Your task to perform on an android device: turn on location history Image 0: 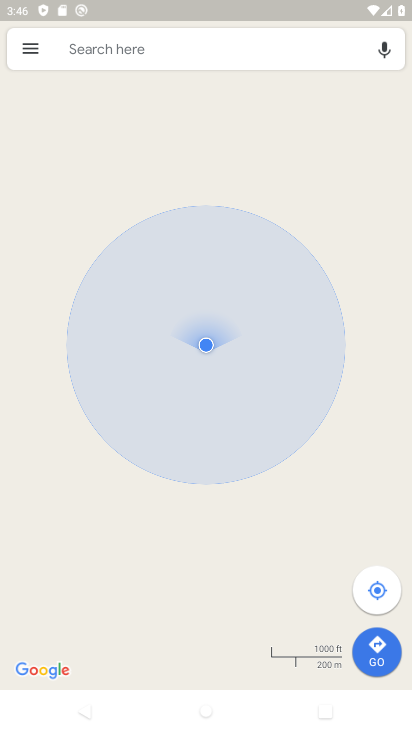
Step 0: press back button
Your task to perform on an android device: turn on location history Image 1: 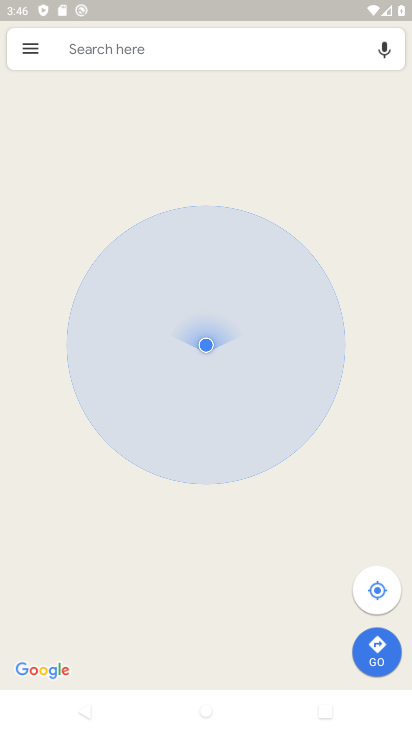
Step 1: click (44, 54)
Your task to perform on an android device: turn on location history Image 2: 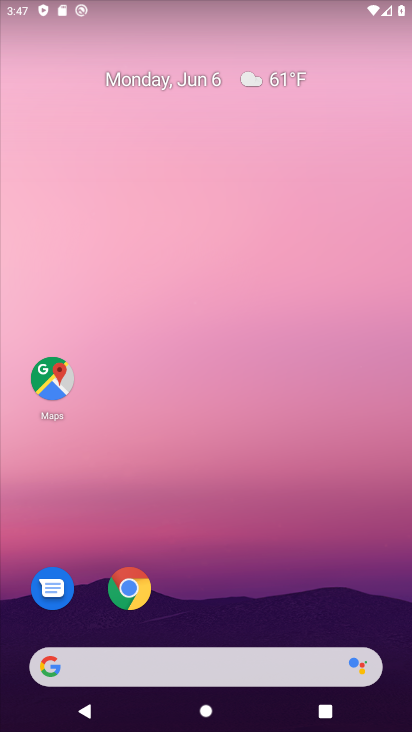
Step 2: drag from (283, 601) to (189, 17)
Your task to perform on an android device: turn on location history Image 3: 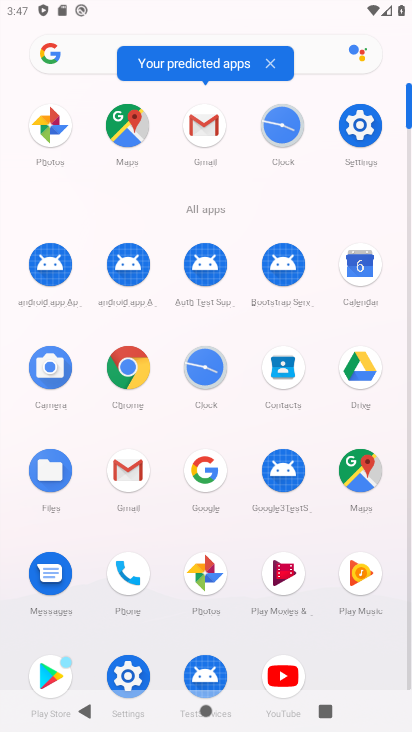
Step 3: click (124, 679)
Your task to perform on an android device: turn on location history Image 4: 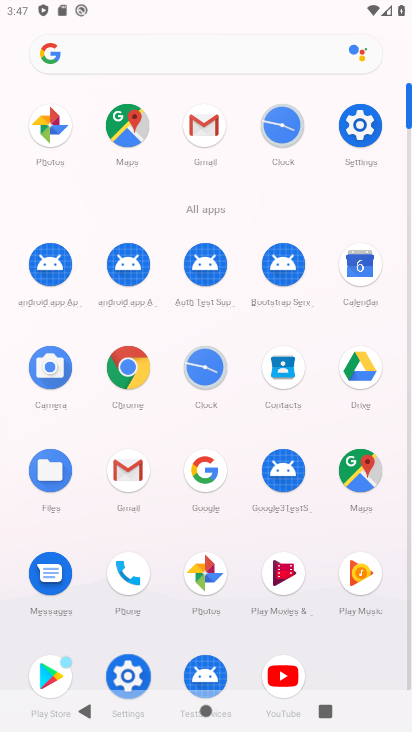
Step 4: click (121, 675)
Your task to perform on an android device: turn on location history Image 5: 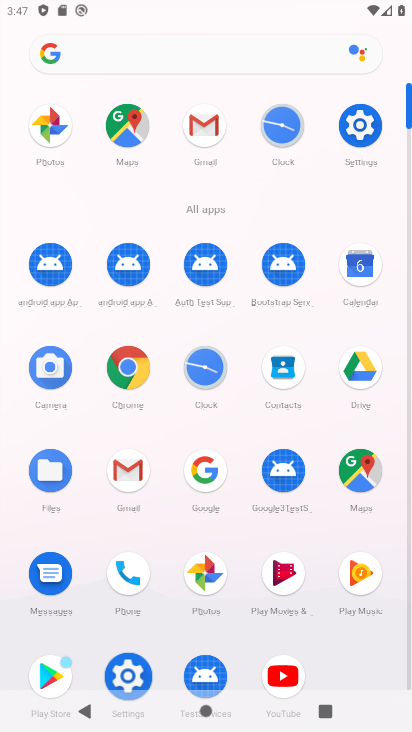
Step 5: click (121, 675)
Your task to perform on an android device: turn on location history Image 6: 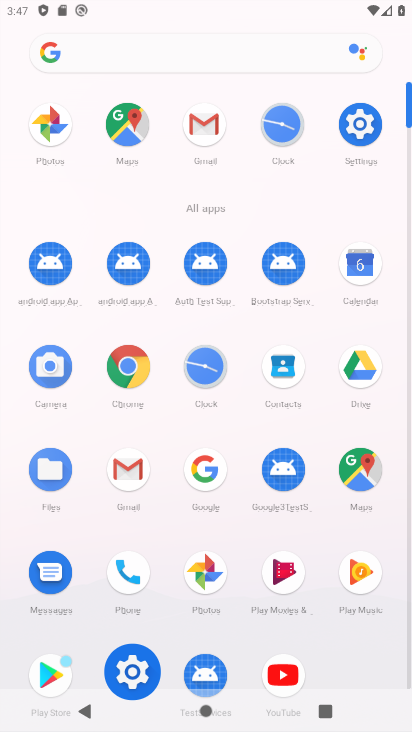
Step 6: click (121, 675)
Your task to perform on an android device: turn on location history Image 7: 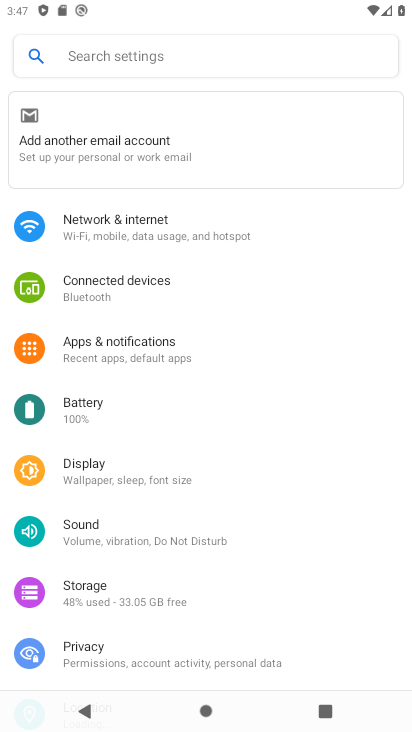
Step 7: drag from (174, 607) to (171, 240)
Your task to perform on an android device: turn on location history Image 8: 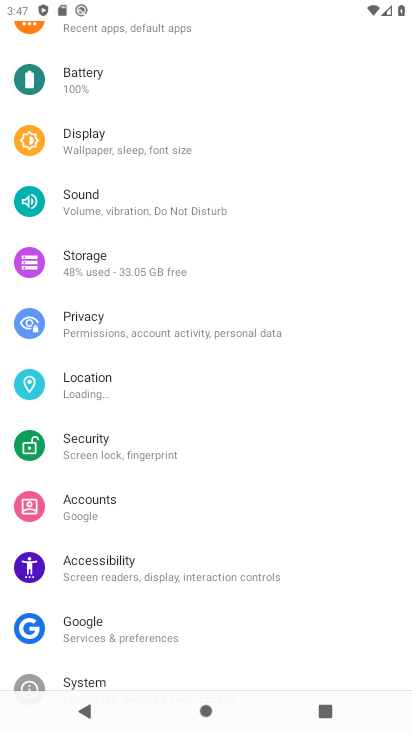
Step 8: drag from (173, 541) to (134, 235)
Your task to perform on an android device: turn on location history Image 9: 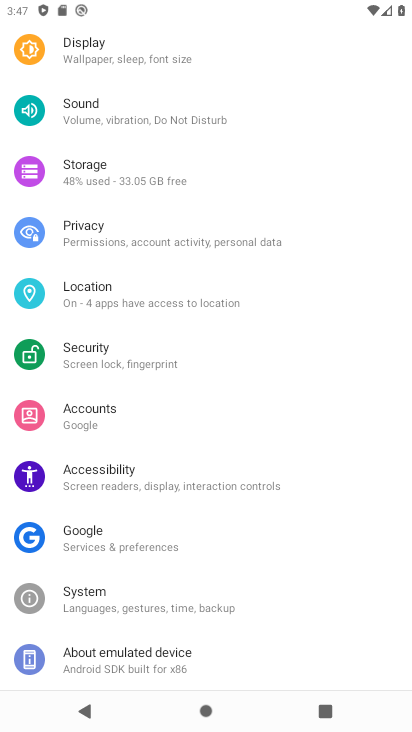
Step 9: click (83, 289)
Your task to perform on an android device: turn on location history Image 10: 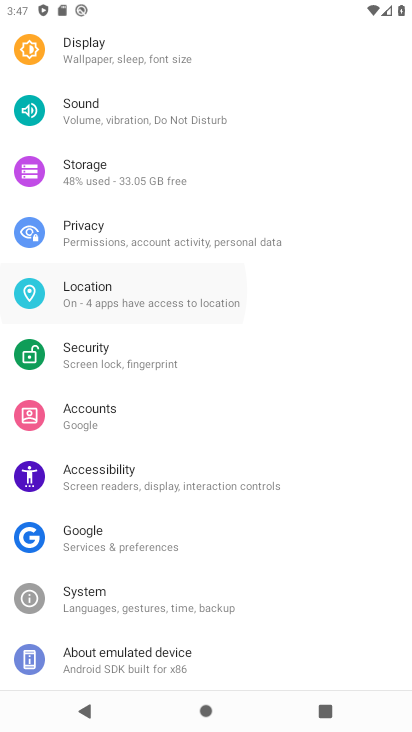
Step 10: click (84, 288)
Your task to perform on an android device: turn on location history Image 11: 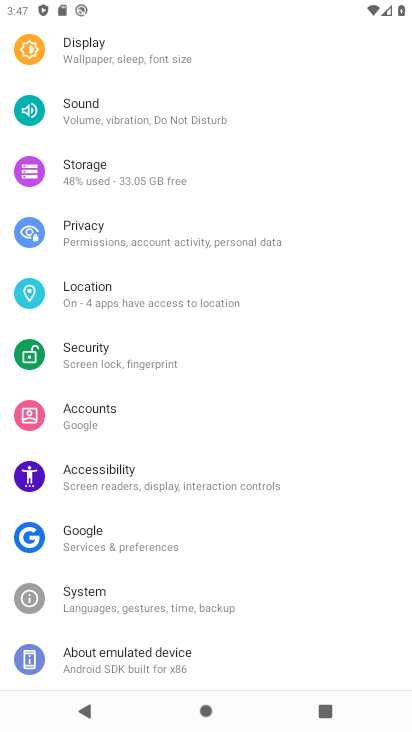
Step 11: click (85, 287)
Your task to perform on an android device: turn on location history Image 12: 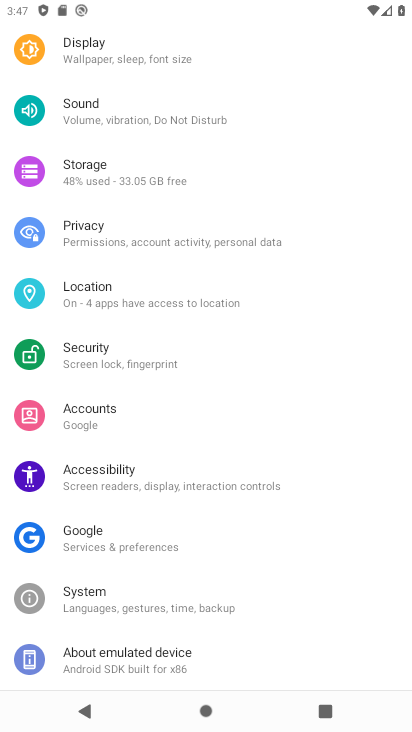
Step 12: click (84, 287)
Your task to perform on an android device: turn on location history Image 13: 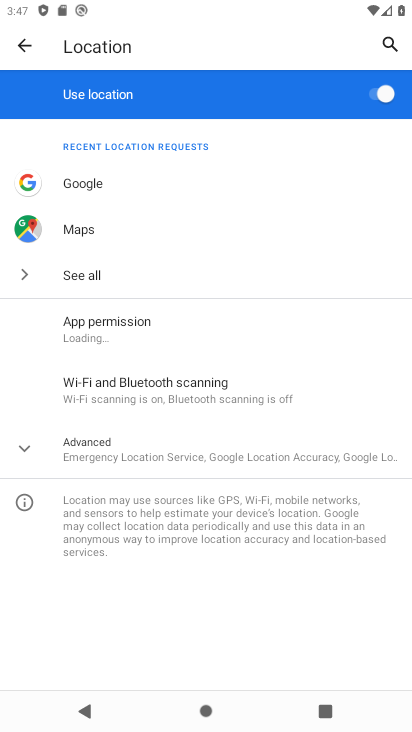
Step 13: click (126, 440)
Your task to perform on an android device: turn on location history Image 14: 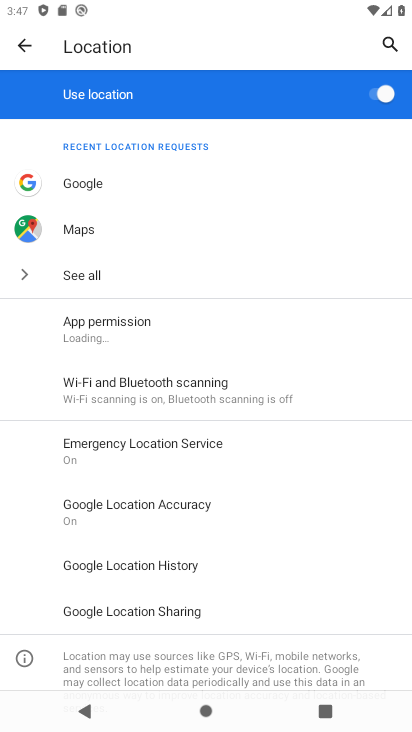
Step 14: click (165, 565)
Your task to perform on an android device: turn on location history Image 15: 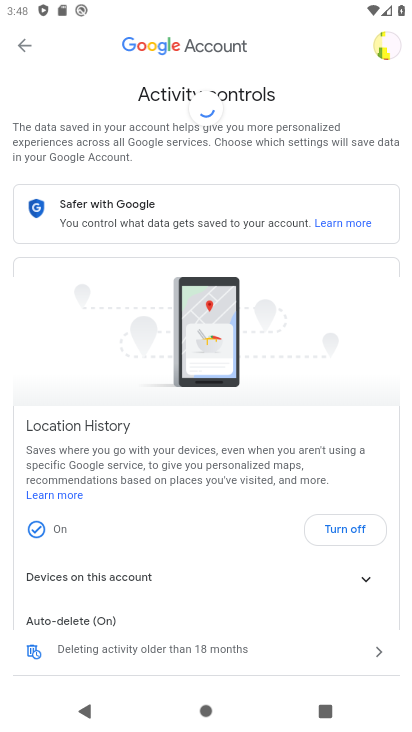
Step 15: click (339, 524)
Your task to perform on an android device: turn on location history Image 16: 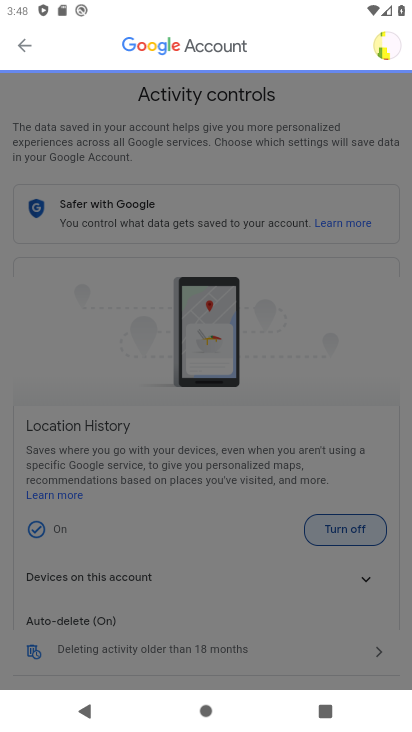
Step 16: click (349, 517)
Your task to perform on an android device: turn on location history Image 17: 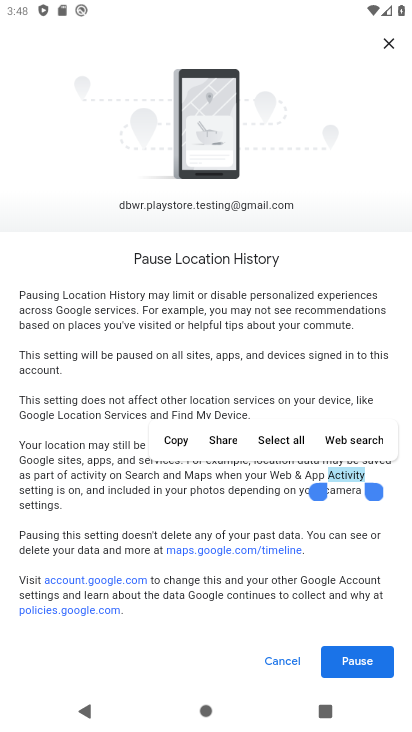
Step 17: task complete